Your task to perform on an android device: change text size in settings app Image 0: 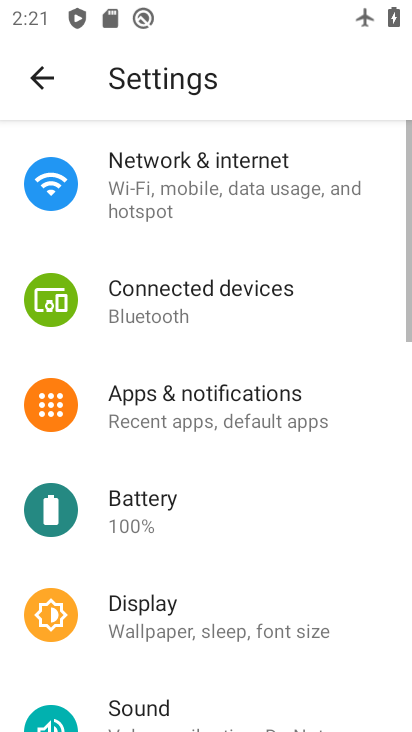
Step 0: press home button
Your task to perform on an android device: change text size in settings app Image 1: 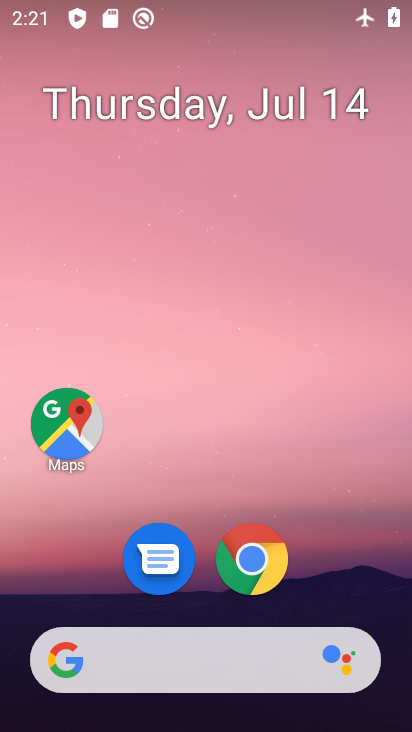
Step 1: drag from (231, 665) to (251, 178)
Your task to perform on an android device: change text size in settings app Image 2: 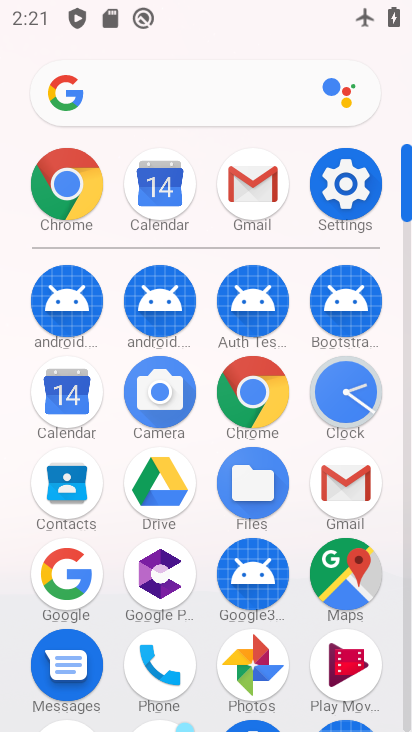
Step 2: click (355, 171)
Your task to perform on an android device: change text size in settings app Image 3: 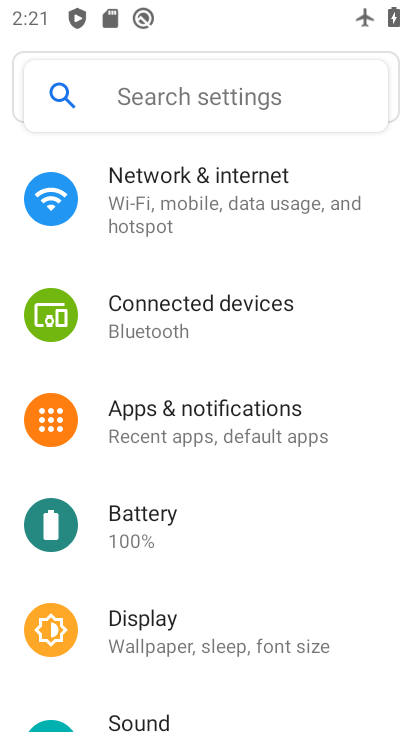
Step 3: click (135, 644)
Your task to perform on an android device: change text size in settings app Image 4: 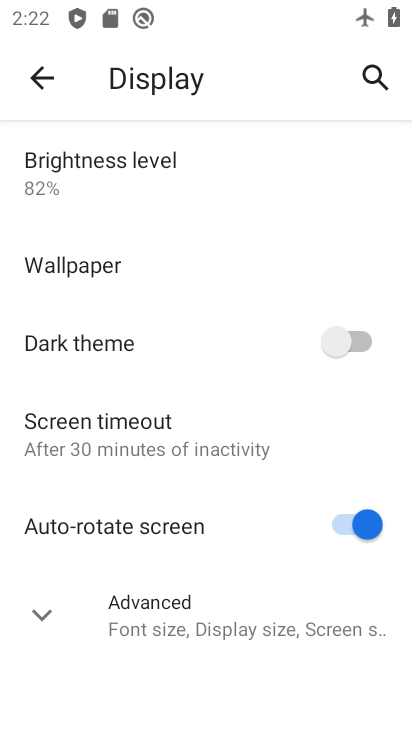
Step 4: click (117, 618)
Your task to perform on an android device: change text size in settings app Image 5: 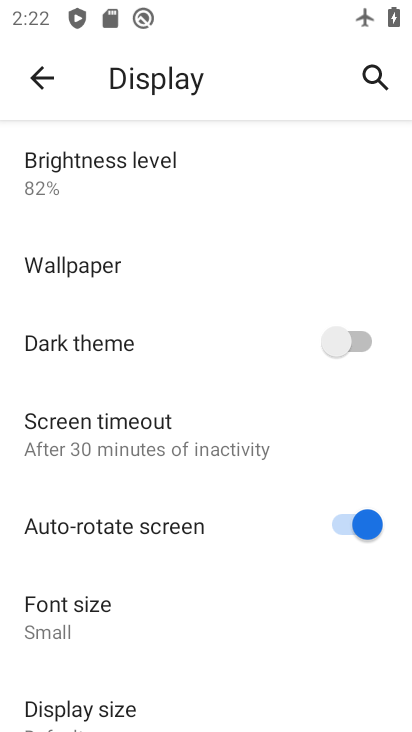
Step 5: click (131, 611)
Your task to perform on an android device: change text size in settings app Image 6: 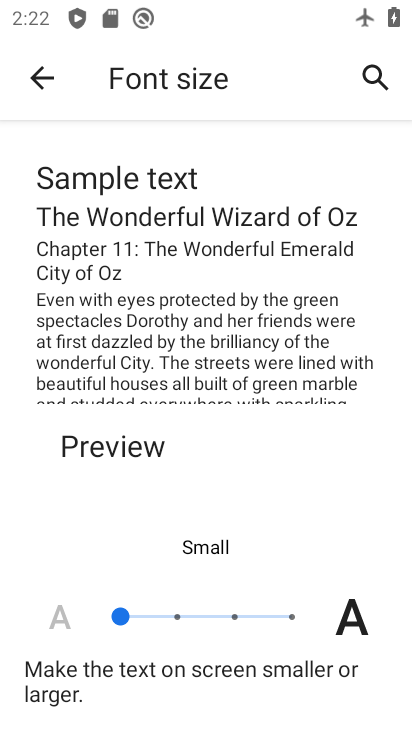
Step 6: click (178, 634)
Your task to perform on an android device: change text size in settings app Image 7: 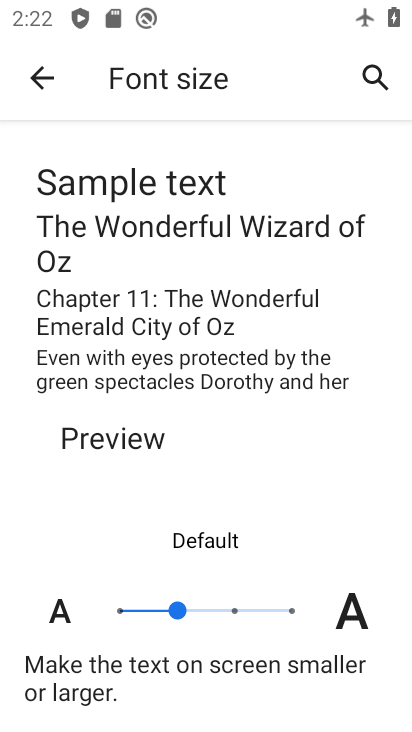
Step 7: task complete